Your task to perform on an android device: turn off picture-in-picture Image 0: 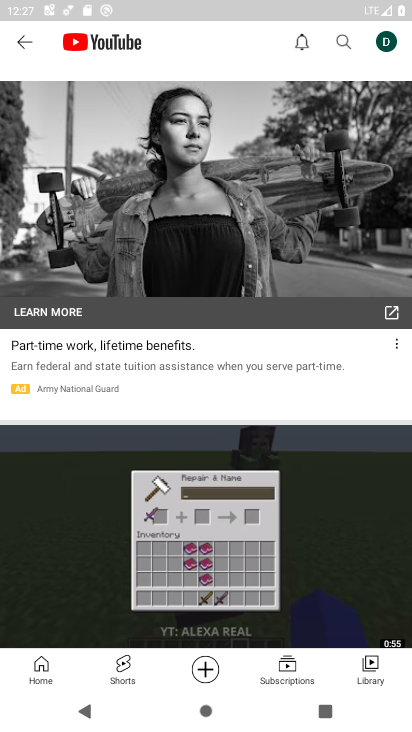
Step 0: press home button
Your task to perform on an android device: turn off picture-in-picture Image 1: 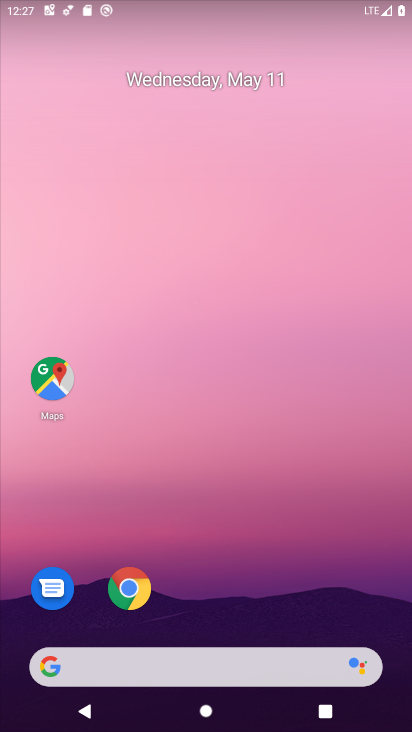
Step 1: click (131, 598)
Your task to perform on an android device: turn off picture-in-picture Image 2: 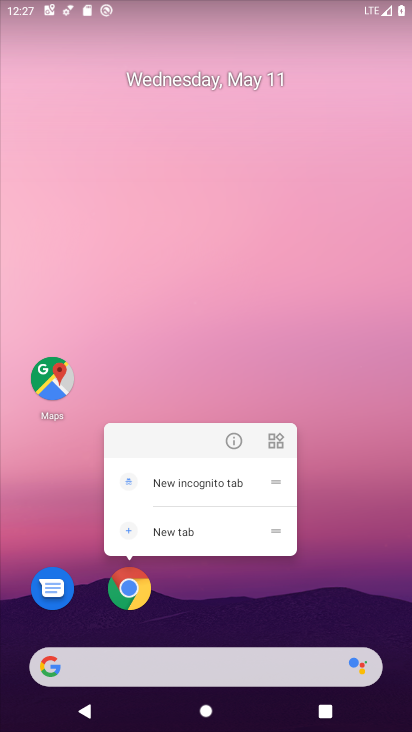
Step 2: click (233, 443)
Your task to perform on an android device: turn off picture-in-picture Image 3: 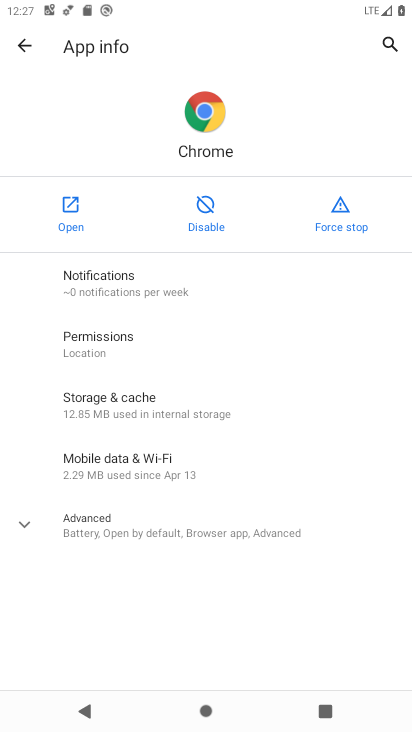
Step 3: click (159, 522)
Your task to perform on an android device: turn off picture-in-picture Image 4: 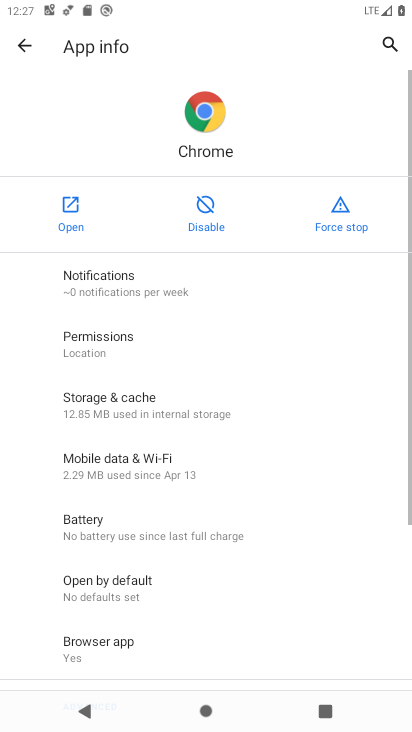
Step 4: drag from (176, 664) to (203, 366)
Your task to perform on an android device: turn off picture-in-picture Image 5: 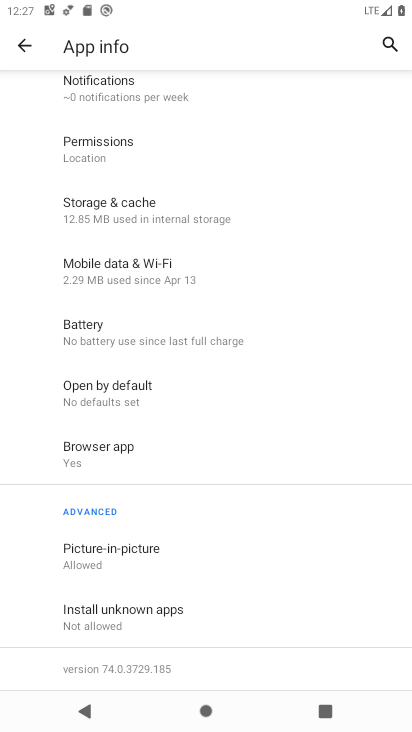
Step 5: click (140, 555)
Your task to perform on an android device: turn off picture-in-picture Image 6: 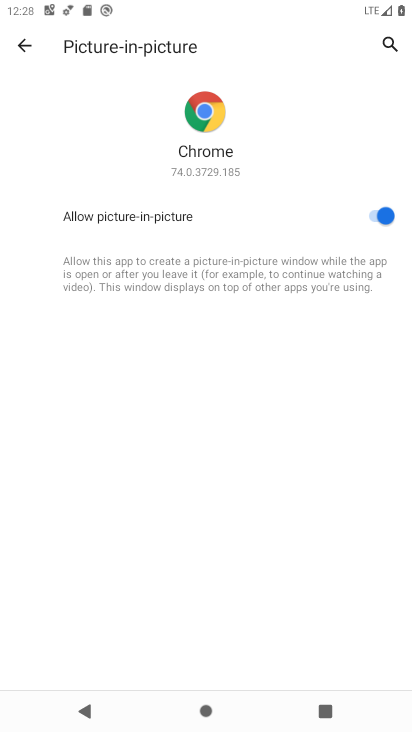
Step 6: click (371, 211)
Your task to perform on an android device: turn off picture-in-picture Image 7: 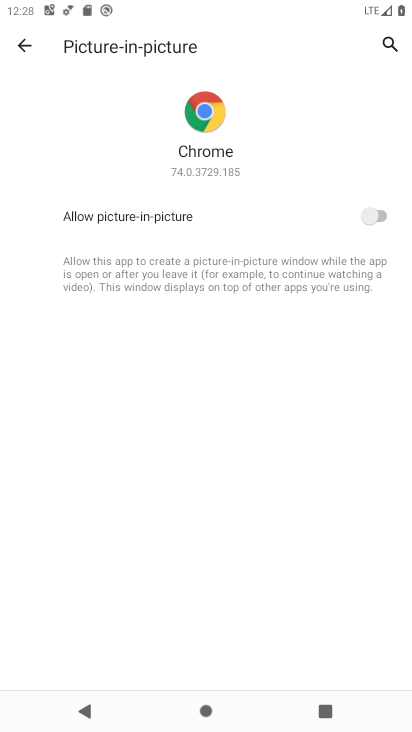
Step 7: task complete